Your task to perform on an android device: turn notification dots on Image 0: 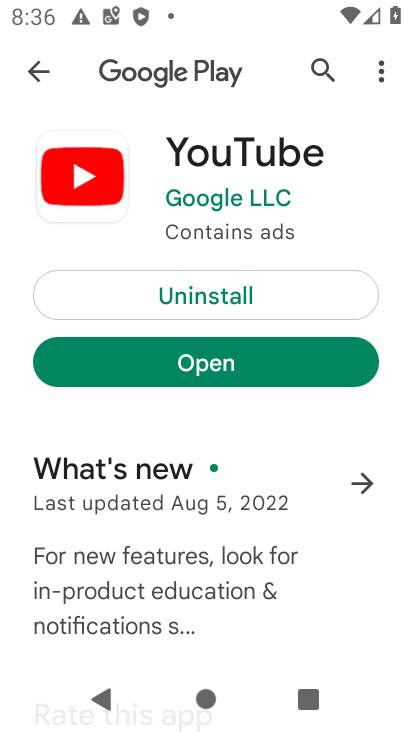
Step 0: press home button
Your task to perform on an android device: turn notification dots on Image 1: 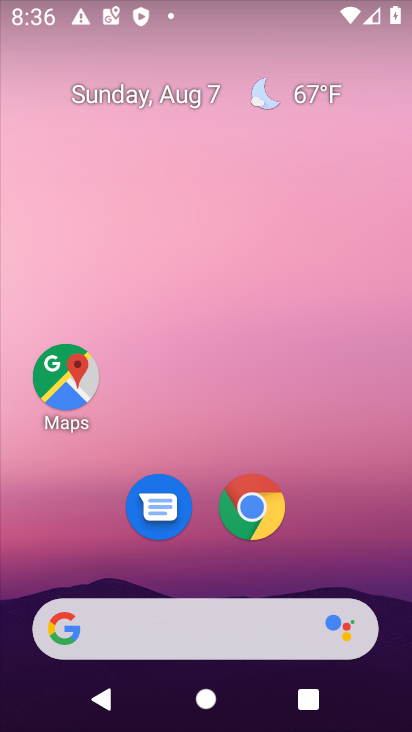
Step 1: drag from (158, 637) to (245, 68)
Your task to perform on an android device: turn notification dots on Image 2: 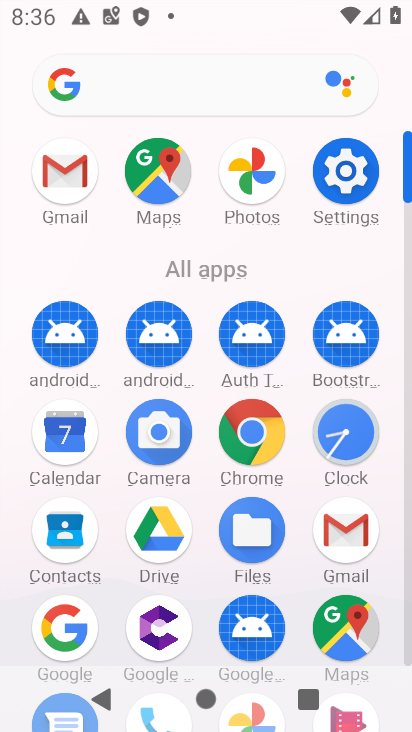
Step 2: click (349, 176)
Your task to perform on an android device: turn notification dots on Image 3: 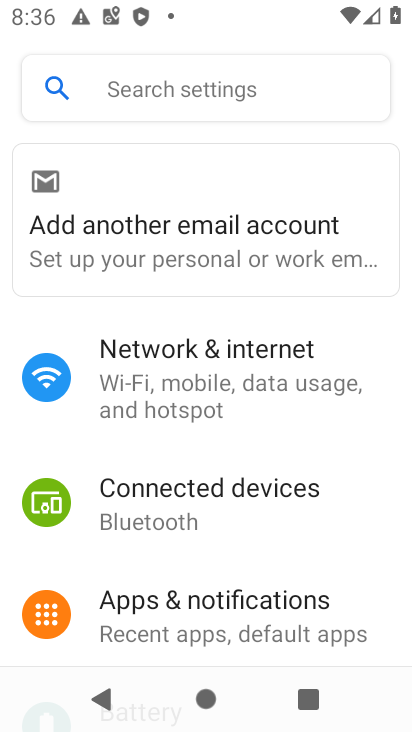
Step 3: drag from (258, 534) to (352, 204)
Your task to perform on an android device: turn notification dots on Image 4: 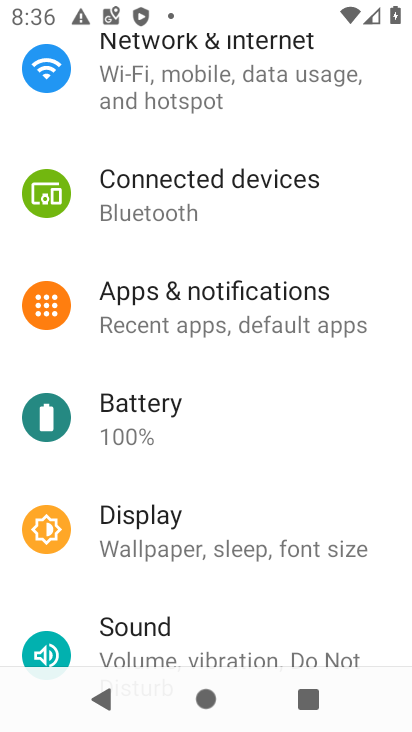
Step 4: click (271, 311)
Your task to perform on an android device: turn notification dots on Image 5: 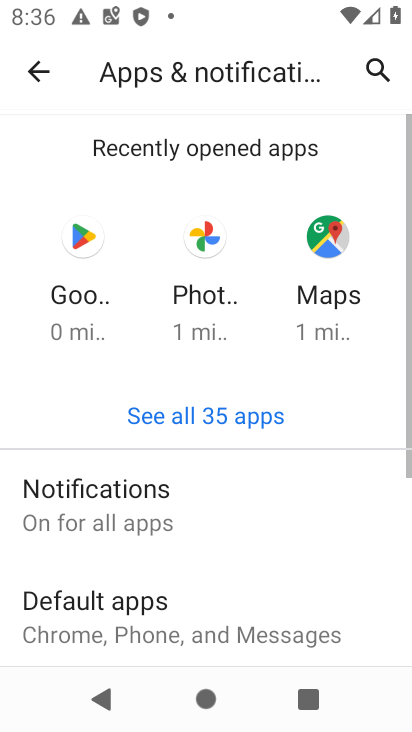
Step 5: click (106, 519)
Your task to perform on an android device: turn notification dots on Image 6: 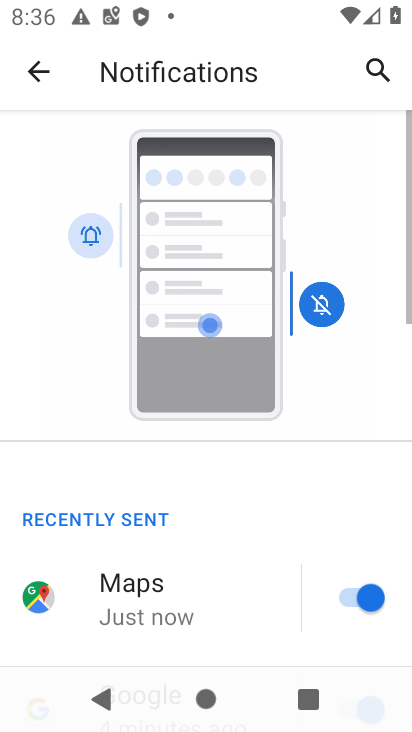
Step 6: drag from (249, 590) to (382, 92)
Your task to perform on an android device: turn notification dots on Image 7: 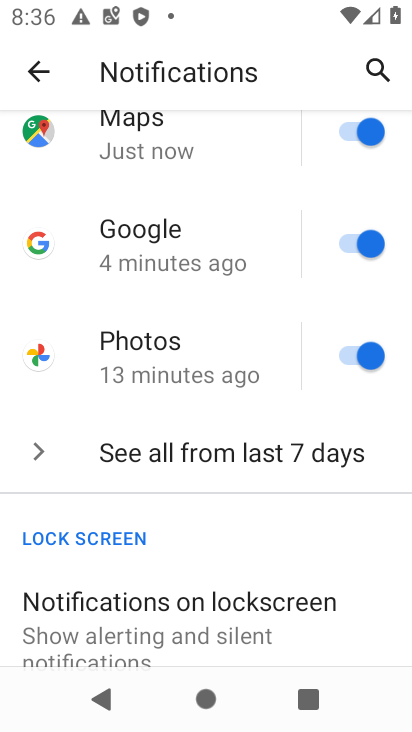
Step 7: drag from (234, 529) to (335, 133)
Your task to perform on an android device: turn notification dots on Image 8: 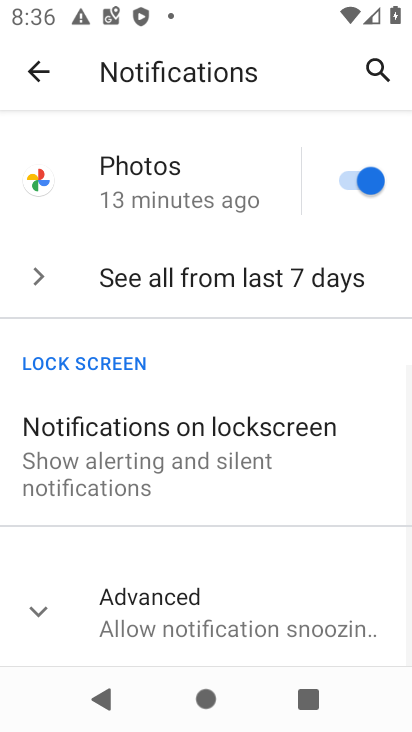
Step 8: click (176, 611)
Your task to perform on an android device: turn notification dots on Image 9: 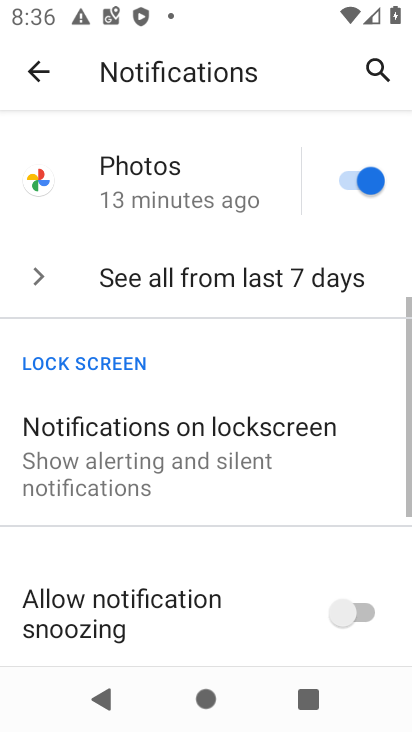
Step 9: task complete